Your task to perform on an android device: open the mobile data screen to see how much data has been used Image 0: 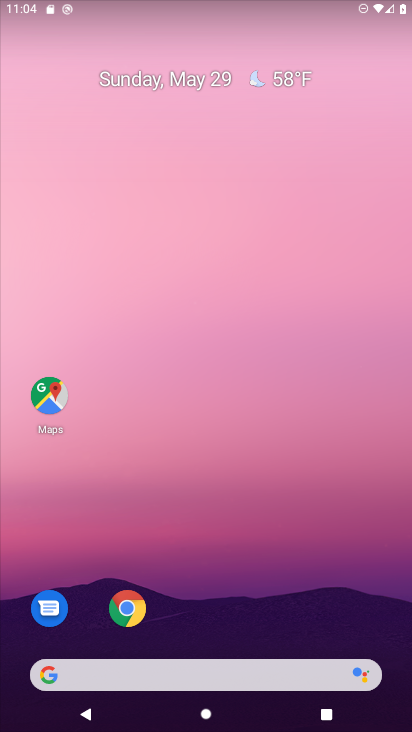
Step 0: drag from (215, 656) to (218, 233)
Your task to perform on an android device: open the mobile data screen to see how much data has been used Image 1: 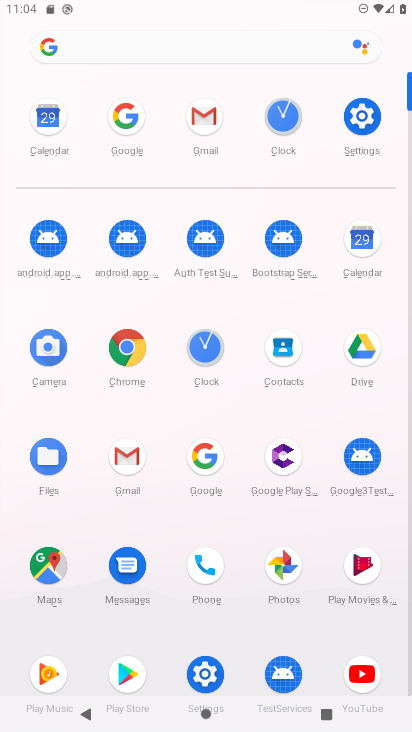
Step 1: click (366, 128)
Your task to perform on an android device: open the mobile data screen to see how much data has been used Image 2: 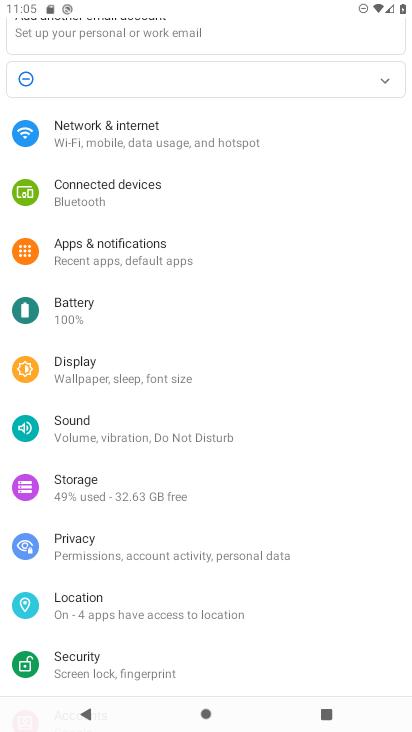
Step 2: click (139, 133)
Your task to perform on an android device: open the mobile data screen to see how much data has been used Image 3: 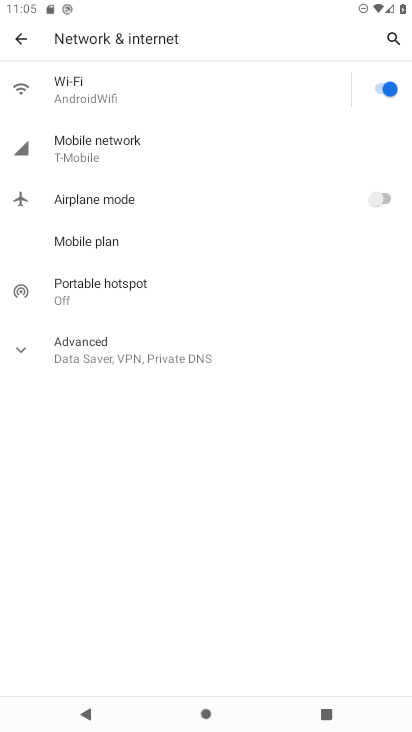
Step 3: click (74, 153)
Your task to perform on an android device: open the mobile data screen to see how much data has been used Image 4: 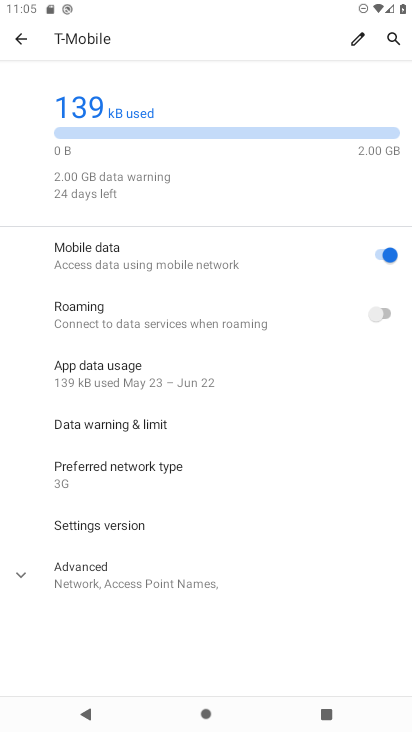
Step 4: task complete